Your task to perform on an android device: open chrome and create a bookmark for the current page Image 0: 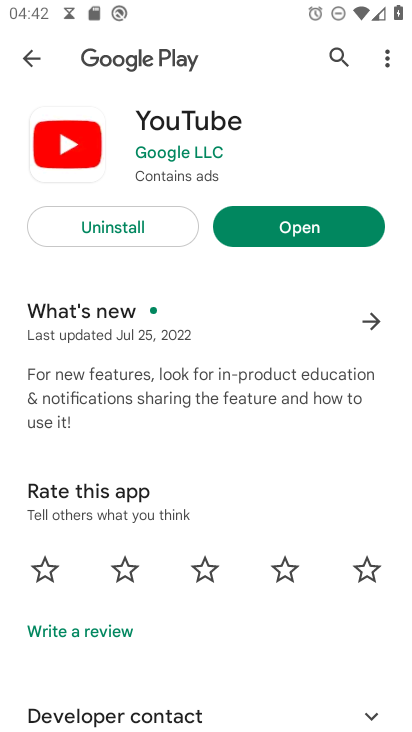
Step 0: press home button
Your task to perform on an android device: open chrome and create a bookmark for the current page Image 1: 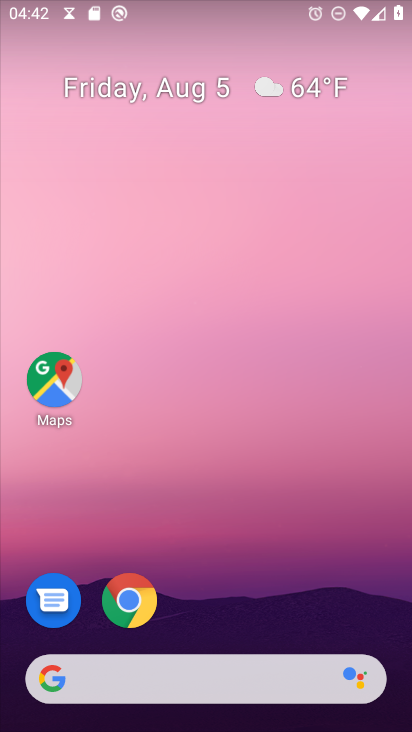
Step 1: click (131, 598)
Your task to perform on an android device: open chrome and create a bookmark for the current page Image 2: 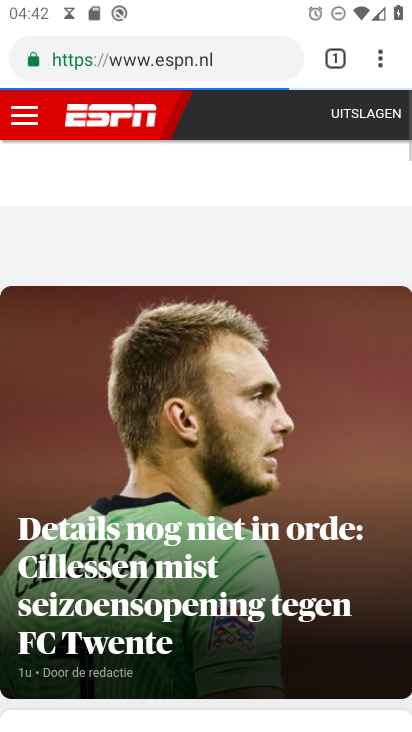
Step 2: click (381, 59)
Your task to perform on an android device: open chrome and create a bookmark for the current page Image 3: 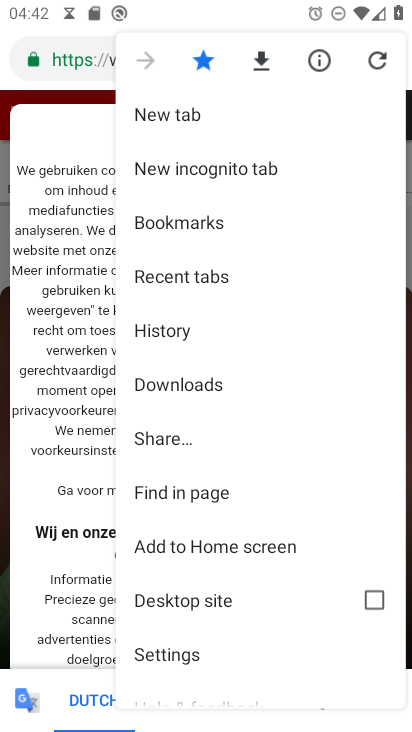
Step 3: task complete